Your task to perform on an android device: see creations saved in the google photos Image 0: 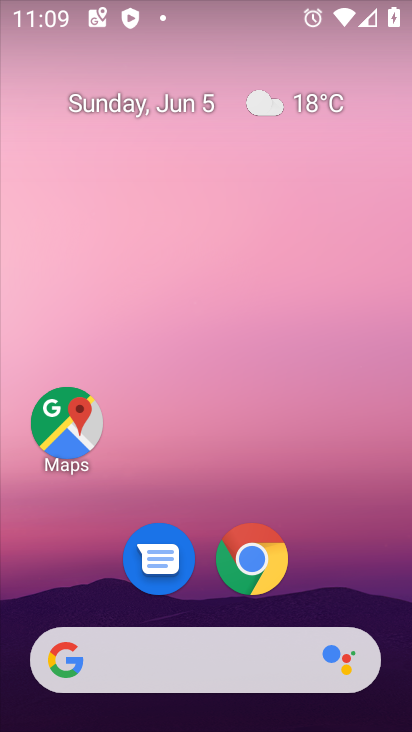
Step 0: drag from (391, 531) to (326, 168)
Your task to perform on an android device: see creations saved in the google photos Image 1: 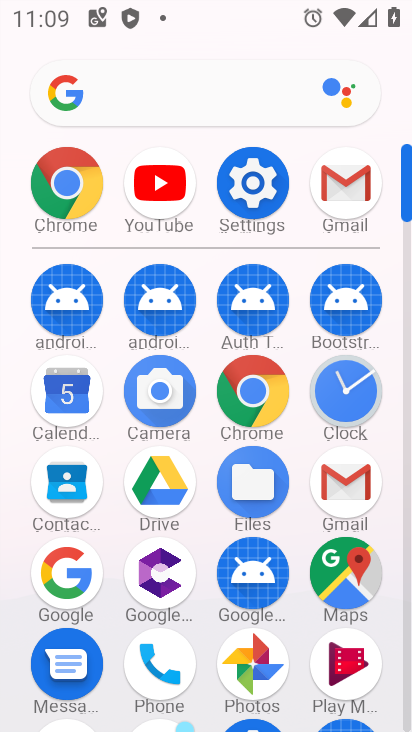
Step 1: click (245, 657)
Your task to perform on an android device: see creations saved in the google photos Image 2: 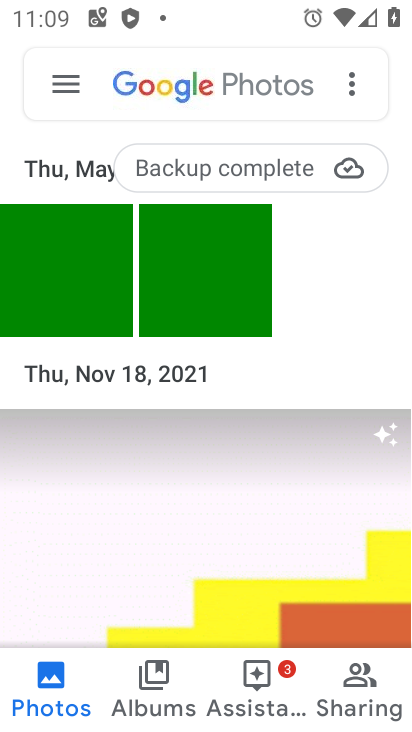
Step 2: drag from (188, 583) to (197, 214)
Your task to perform on an android device: see creations saved in the google photos Image 3: 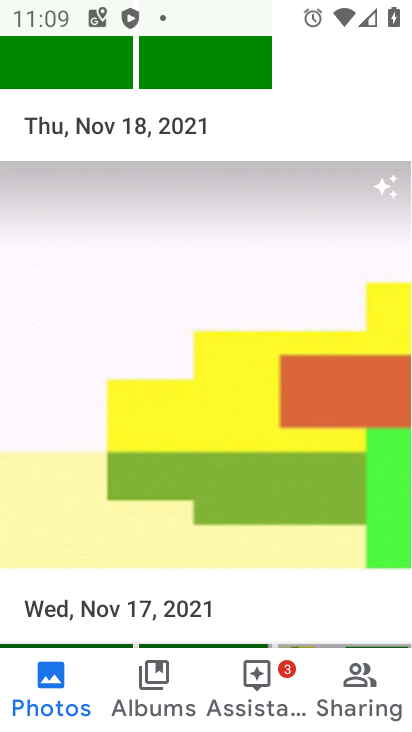
Step 3: drag from (236, 550) to (248, 162)
Your task to perform on an android device: see creations saved in the google photos Image 4: 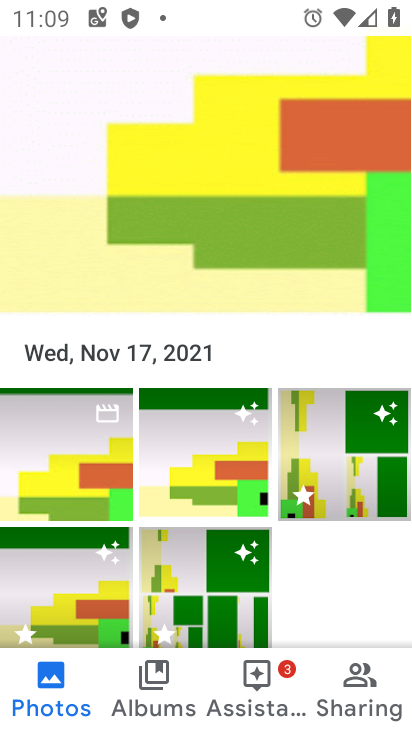
Step 4: click (85, 479)
Your task to perform on an android device: see creations saved in the google photos Image 5: 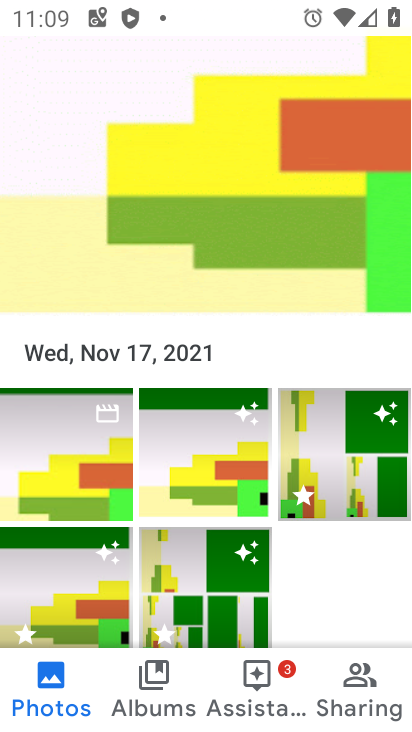
Step 5: click (196, 449)
Your task to perform on an android device: see creations saved in the google photos Image 6: 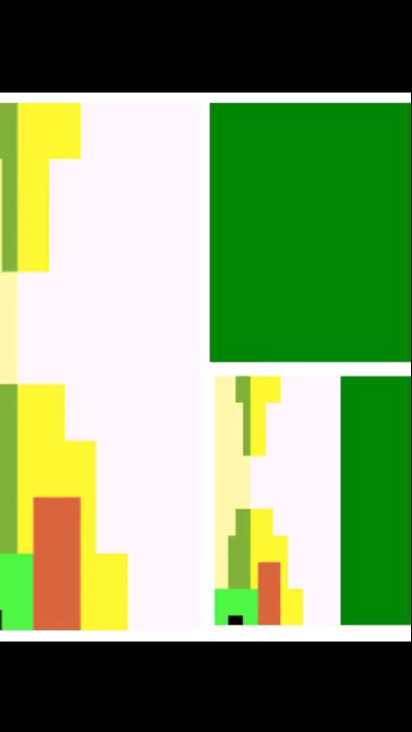
Step 6: click (401, 127)
Your task to perform on an android device: see creations saved in the google photos Image 7: 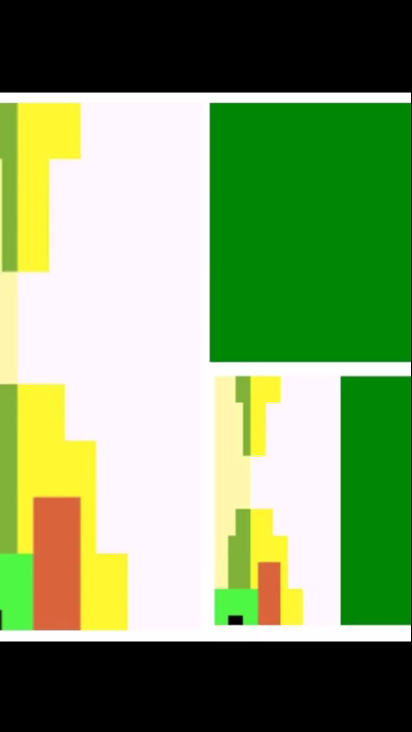
Step 7: click (401, 127)
Your task to perform on an android device: see creations saved in the google photos Image 8: 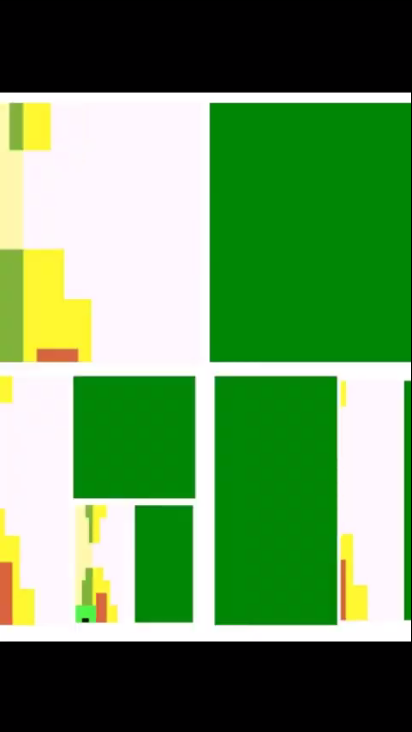
Step 8: press back button
Your task to perform on an android device: see creations saved in the google photos Image 9: 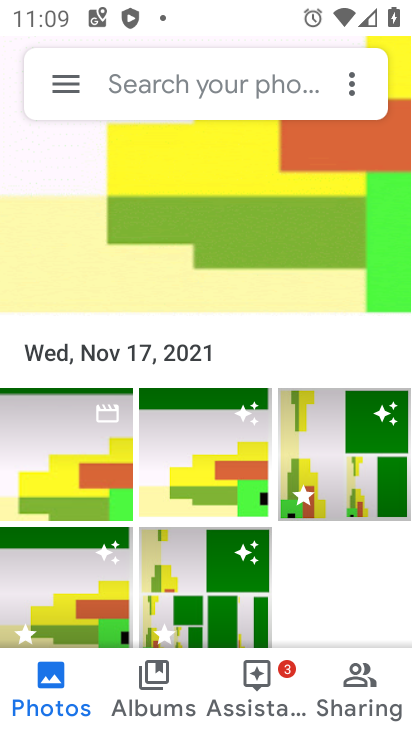
Step 9: click (341, 438)
Your task to perform on an android device: see creations saved in the google photos Image 10: 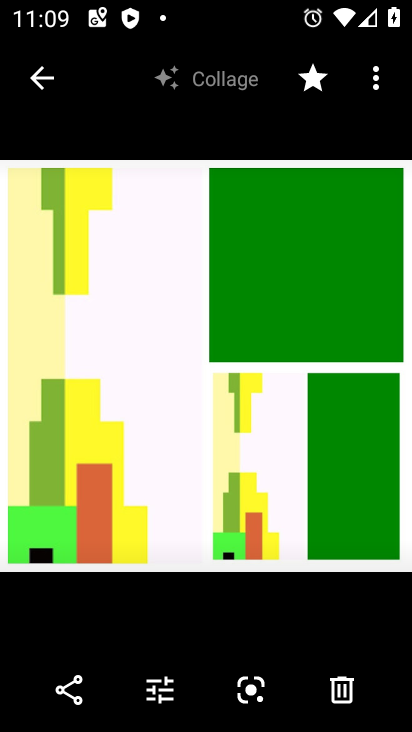
Step 10: press back button
Your task to perform on an android device: see creations saved in the google photos Image 11: 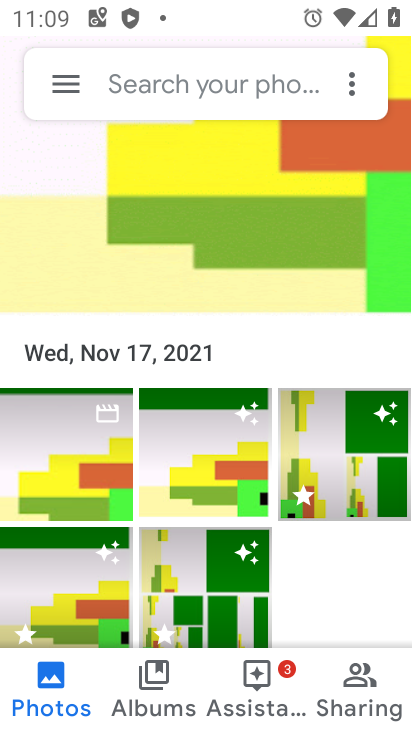
Step 11: click (160, 599)
Your task to perform on an android device: see creations saved in the google photos Image 12: 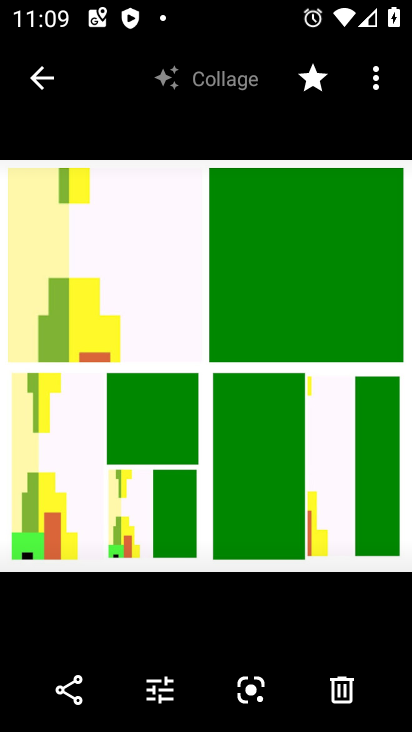
Step 12: task complete